Your task to perform on an android device: Toggle the flashlight Image 0: 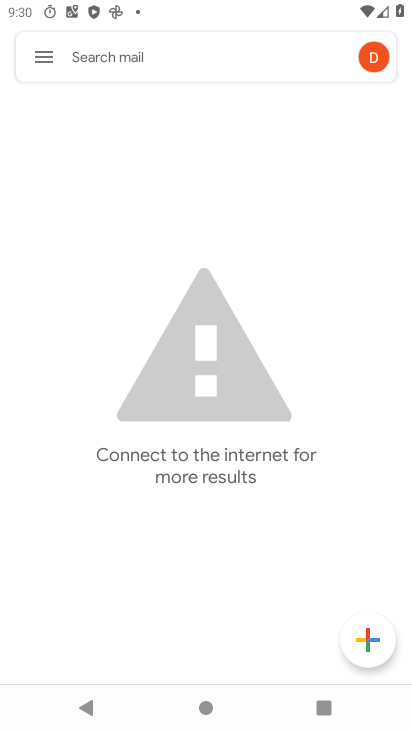
Step 0: drag from (279, 2) to (221, 455)
Your task to perform on an android device: Toggle the flashlight Image 1: 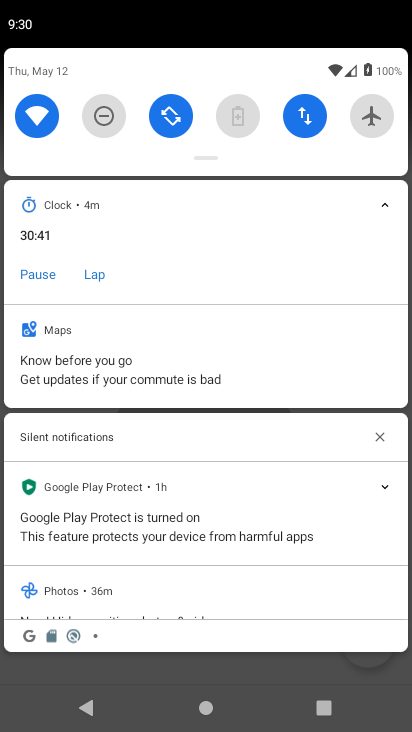
Step 1: task complete